Your task to perform on an android device: Go to settings Image 0: 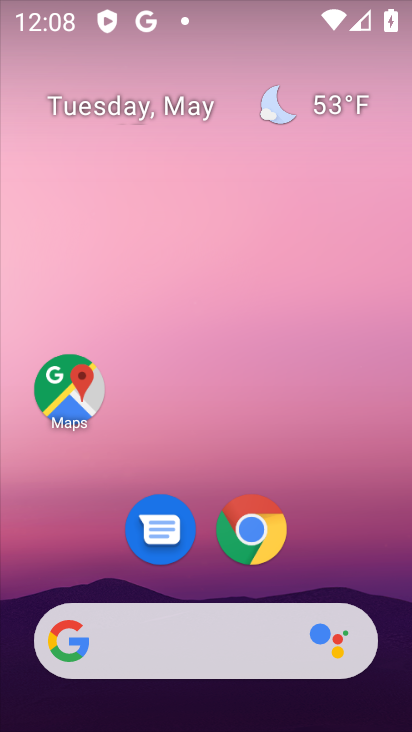
Step 0: drag from (205, 728) to (205, 172)
Your task to perform on an android device: Go to settings Image 1: 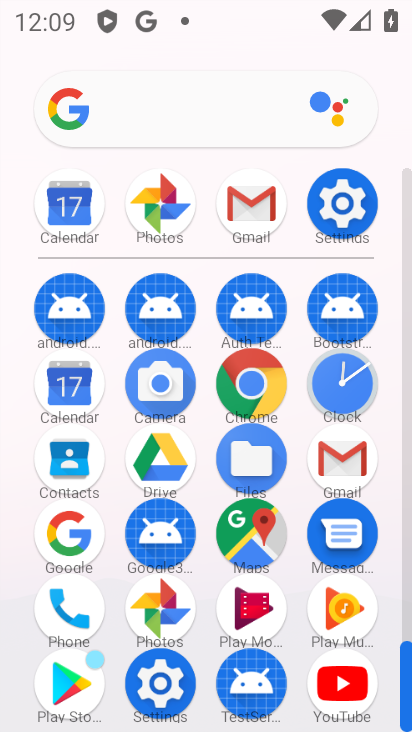
Step 1: click (332, 197)
Your task to perform on an android device: Go to settings Image 2: 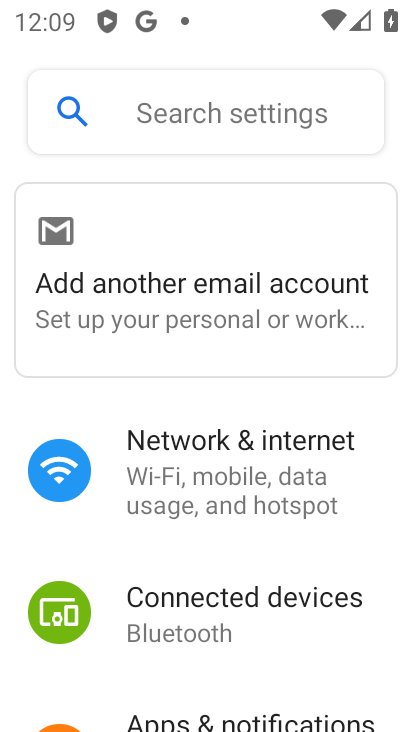
Step 2: task complete